Your task to perform on an android device: What's the weather like inToronto? Image 0: 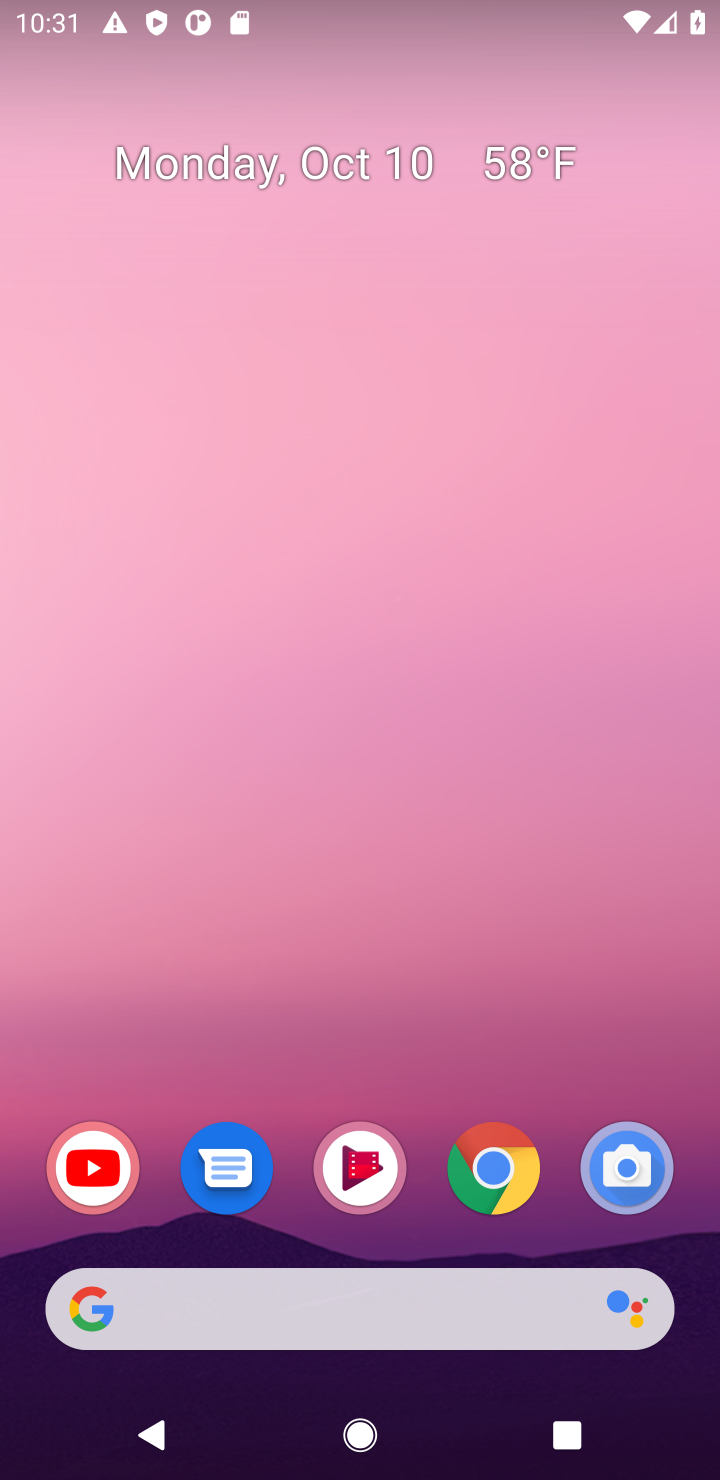
Step 0: click (267, 1300)
Your task to perform on an android device: What's the weather like inToronto? Image 1: 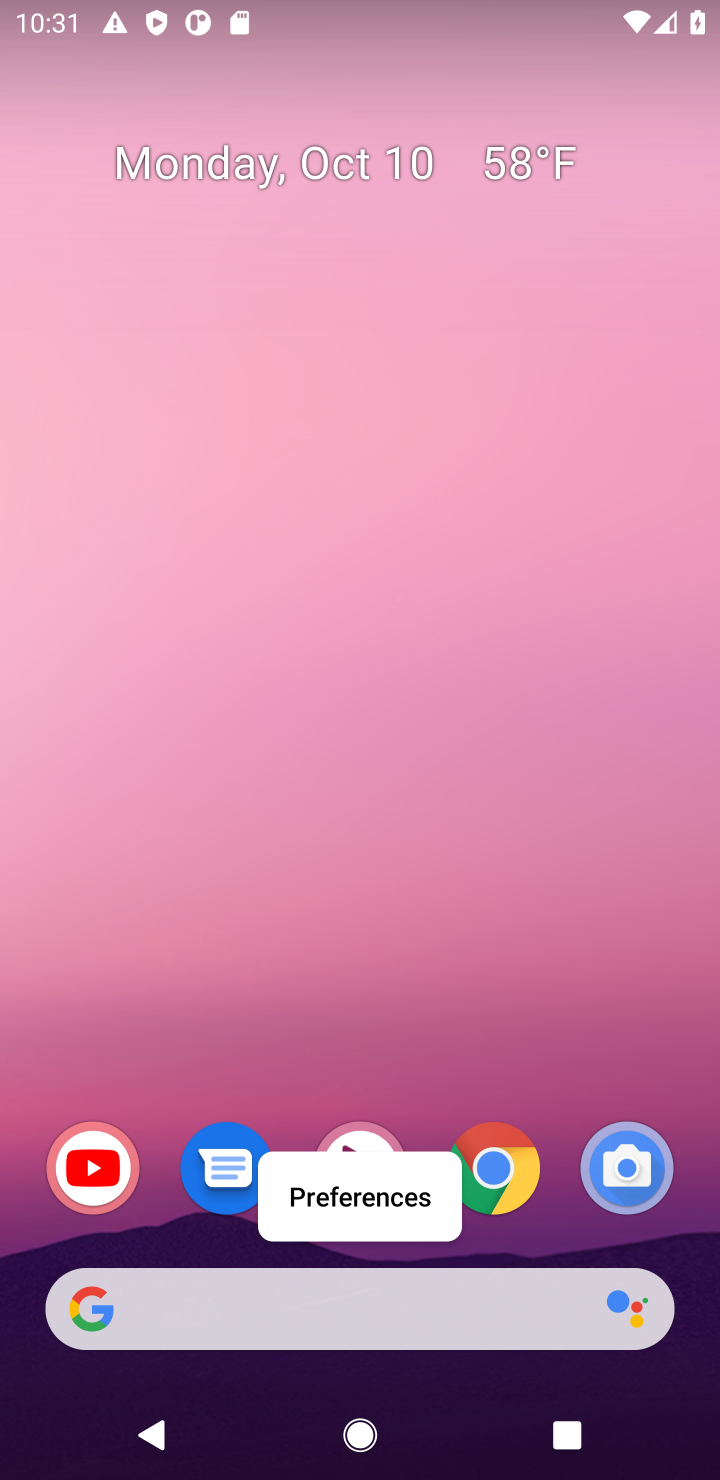
Step 1: click (260, 1330)
Your task to perform on an android device: What's the weather like inToronto? Image 2: 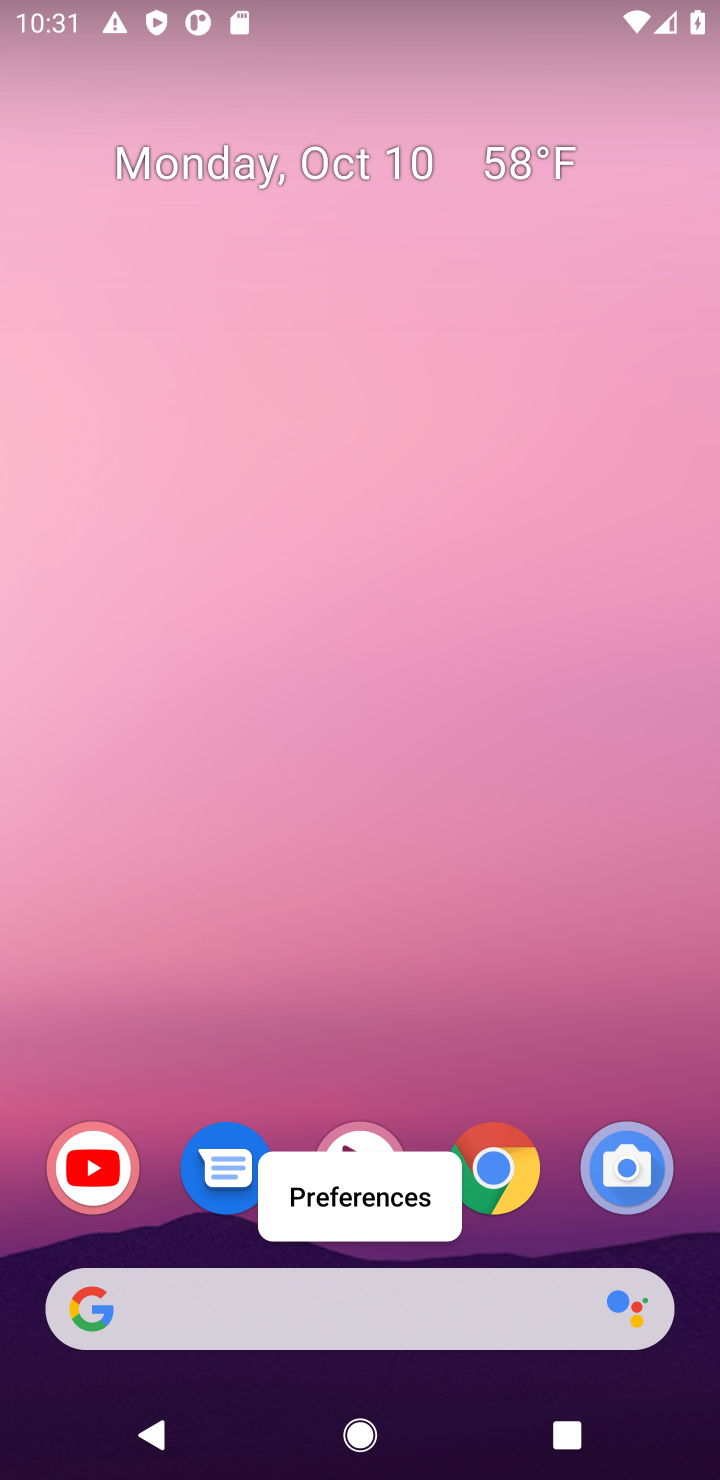
Step 2: click (260, 1330)
Your task to perform on an android device: What's the weather like inToronto? Image 3: 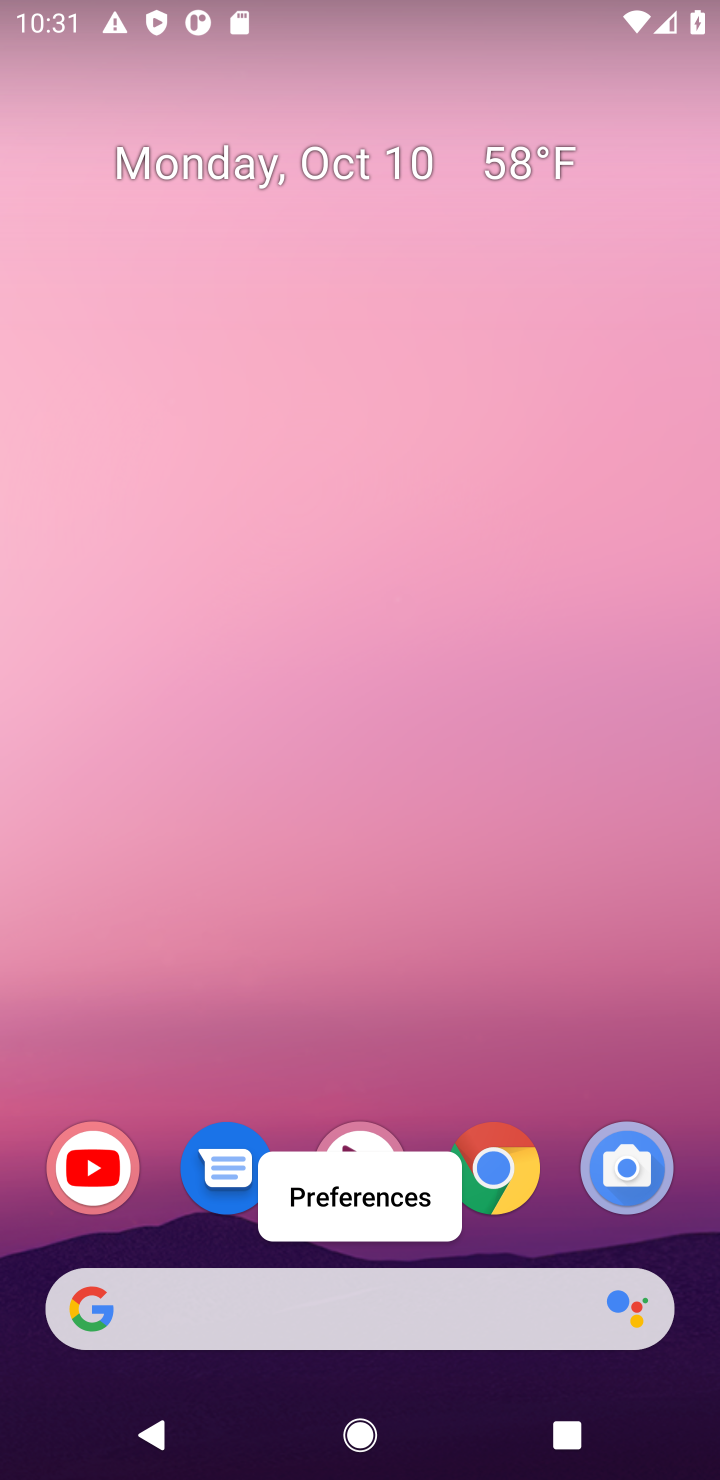
Step 3: click (279, 1319)
Your task to perform on an android device: What's the weather like inToronto? Image 4: 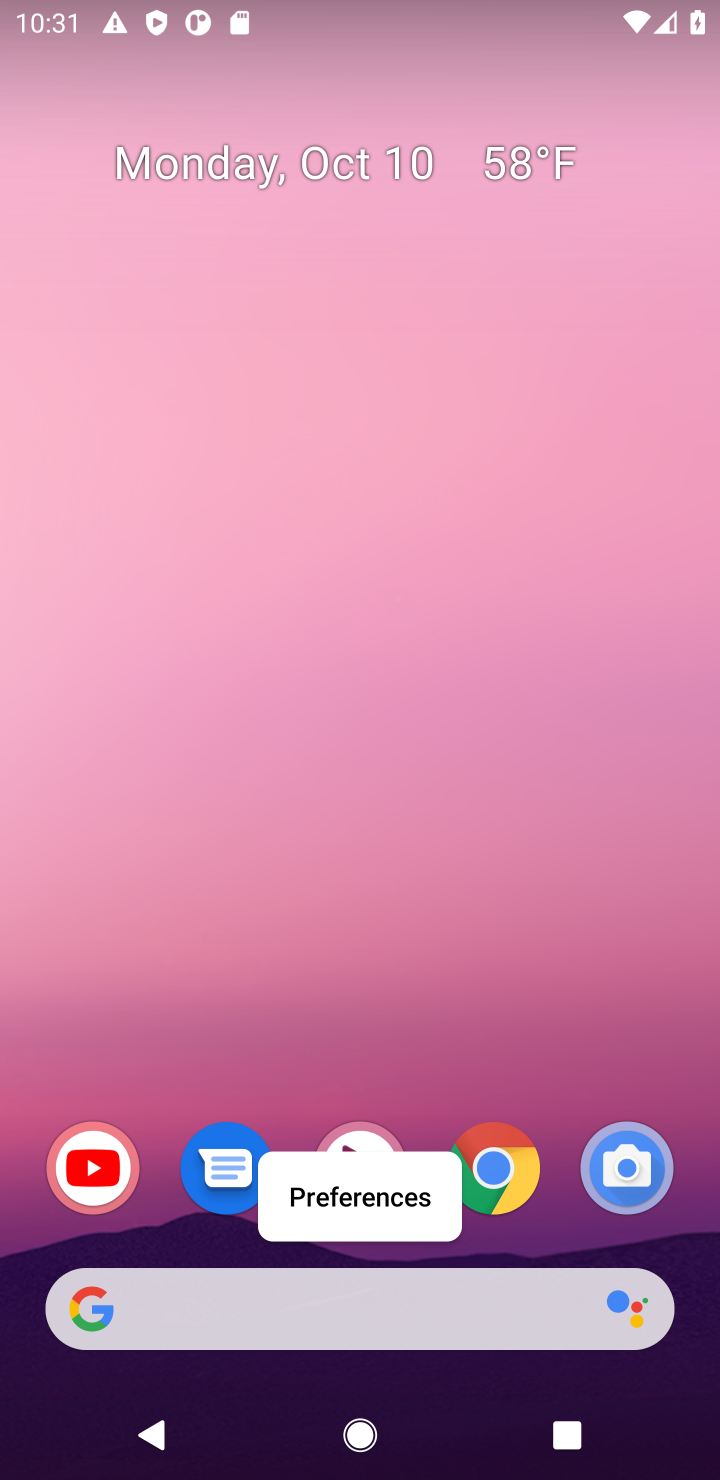
Step 4: click (281, 1319)
Your task to perform on an android device: What's the weather like inToronto? Image 5: 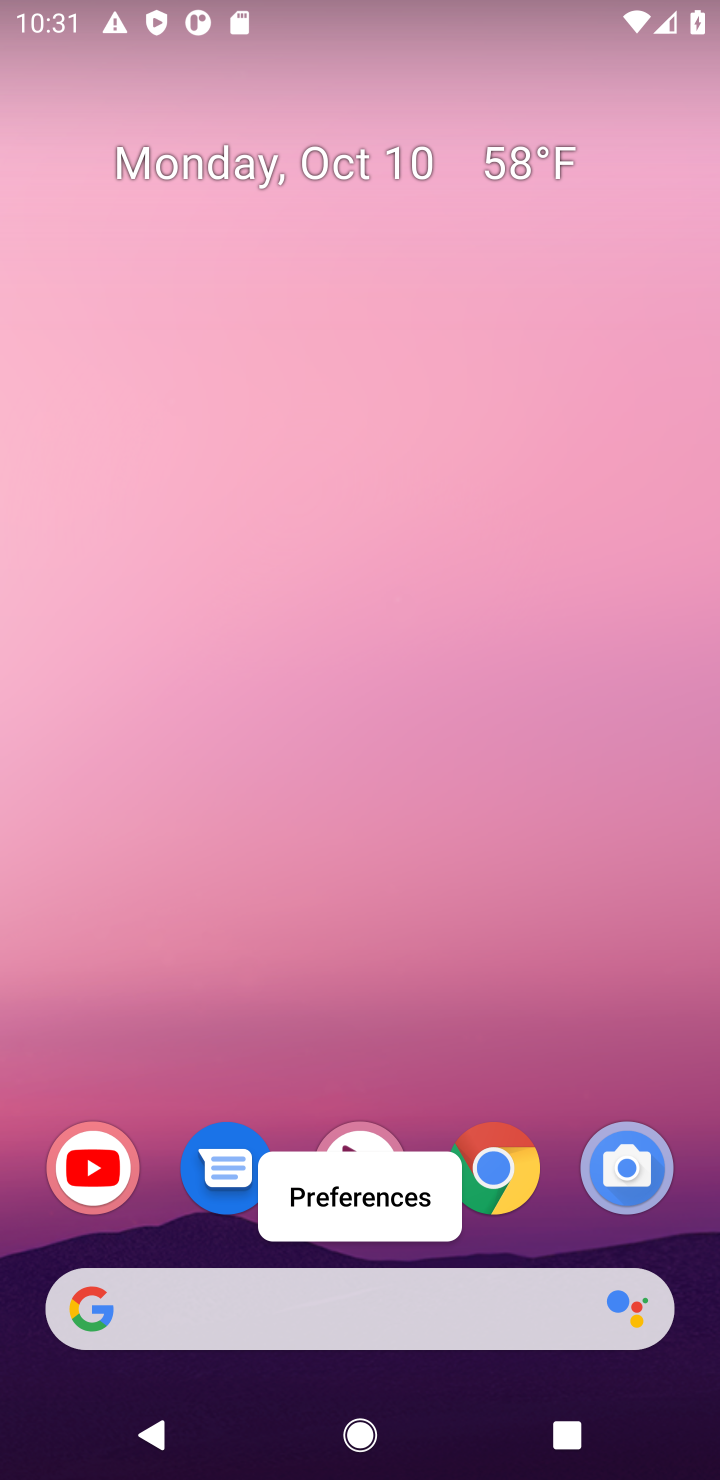
Step 5: click (255, 1325)
Your task to perform on an android device: What's the weather like inToronto? Image 6: 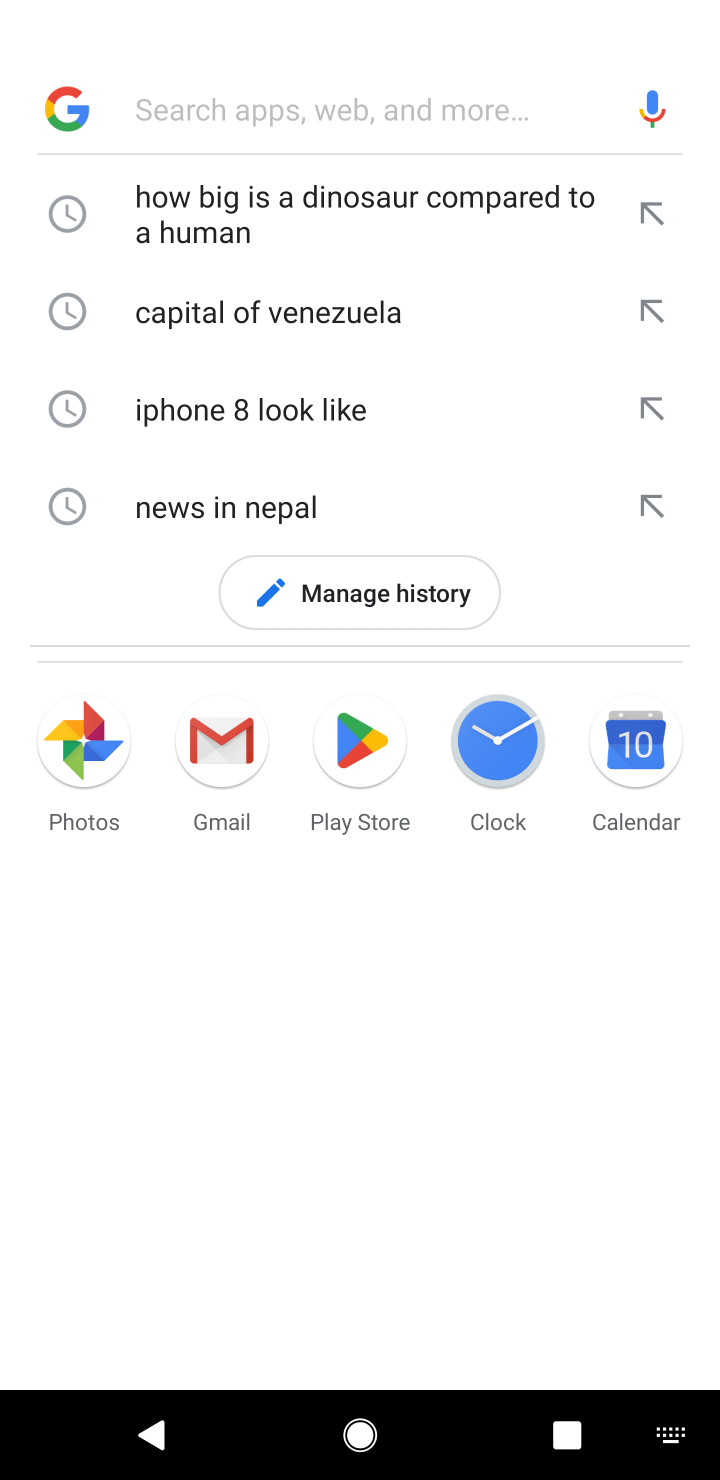
Step 6: type "weather like inToronto"
Your task to perform on an android device: What's the weather like inToronto? Image 7: 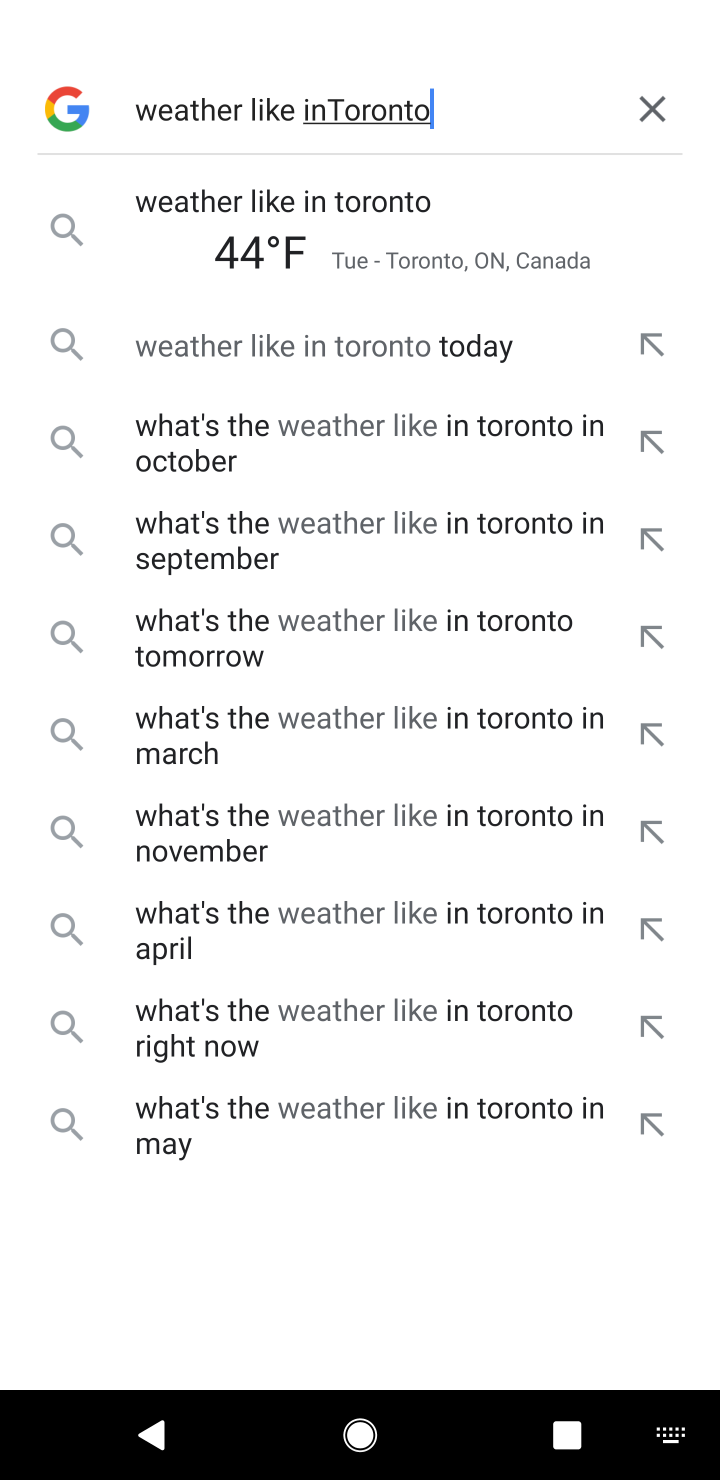
Step 7: type ""
Your task to perform on an android device: What's the weather like inToronto? Image 8: 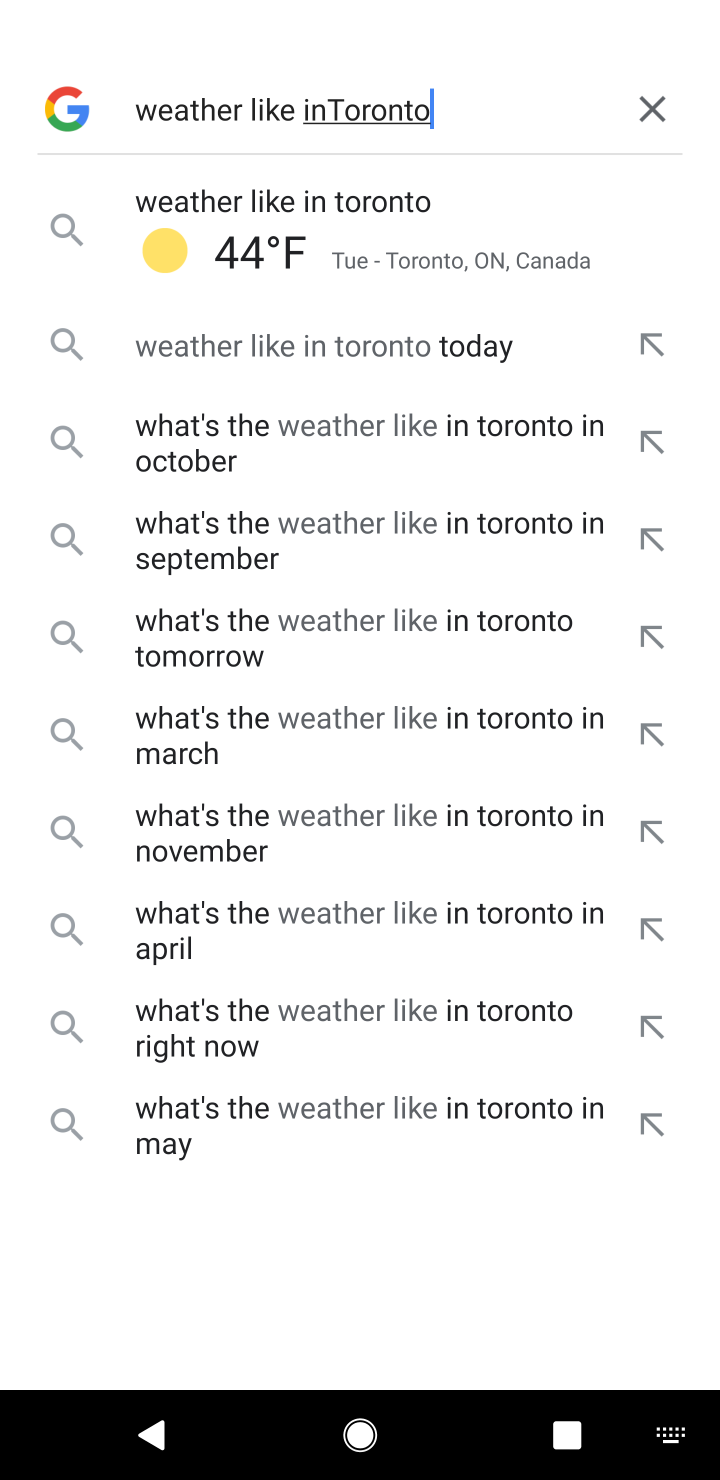
Step 8: click (355, 217)
Your task to perform on an android device: What's the weather like inToronto? Image 9: 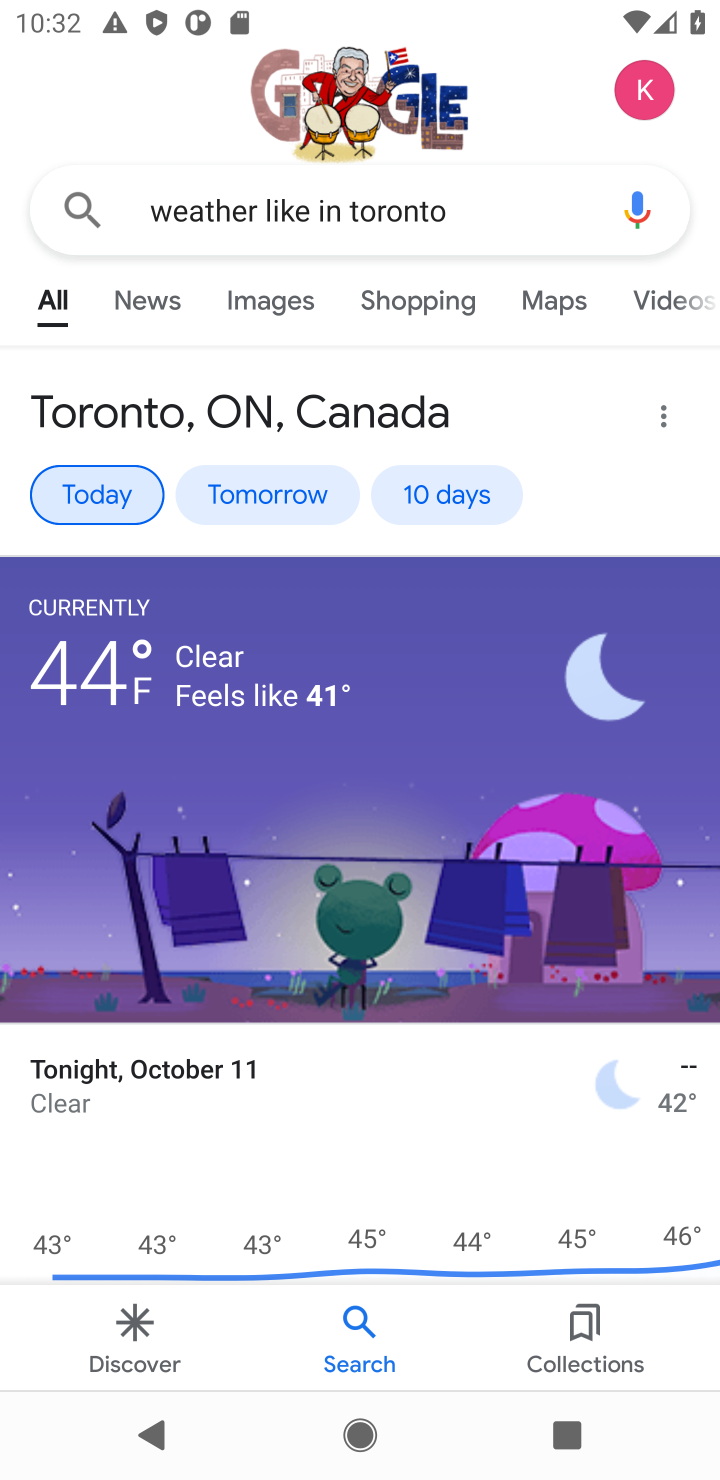
Step 9: task complete